Your task to perform on an android device: Go to privacy settings Image 0: 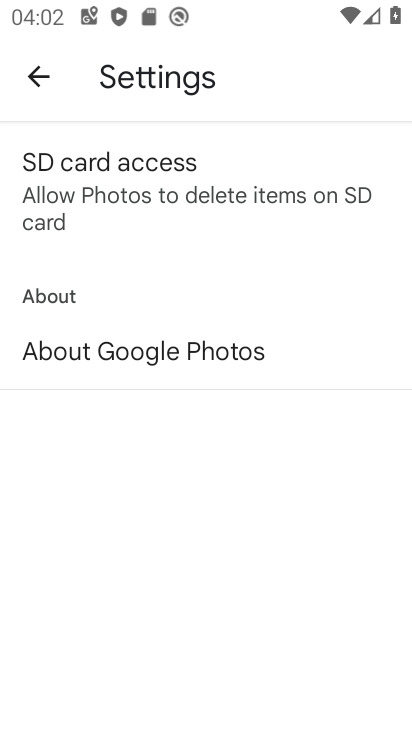
Step 0: press back button
Your task to perform on an android device: Go to privacy settings Image 1: 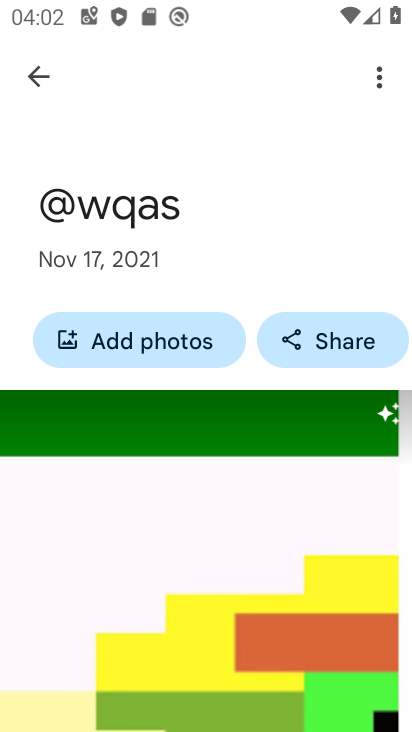
Step 1: press back button
Your task to perform on an android device: Go to privacy settings Image 2: 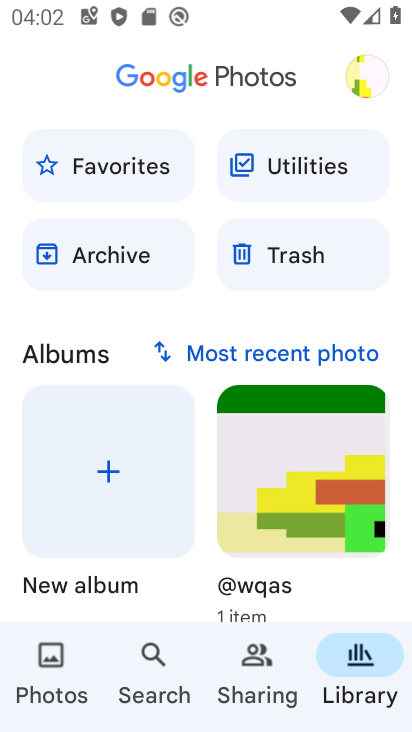
Step 2: press home button
Your task to perform on an android device: Go to privacy settings Image 3: 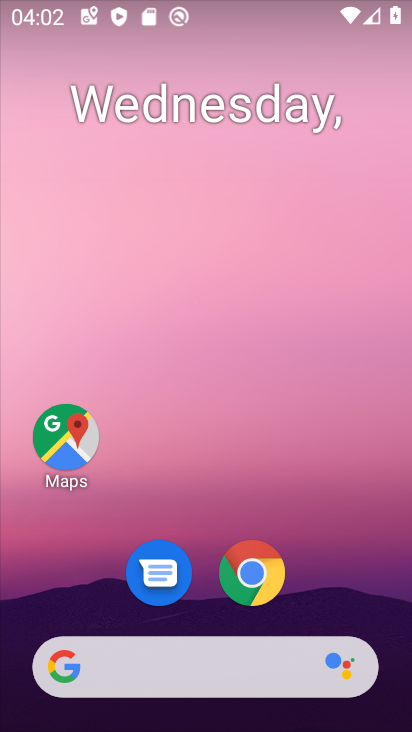
Step 3: drag from (347, 550) to (328, 59)
Your task to perform on an android device: Go to privacy settings Image 4: 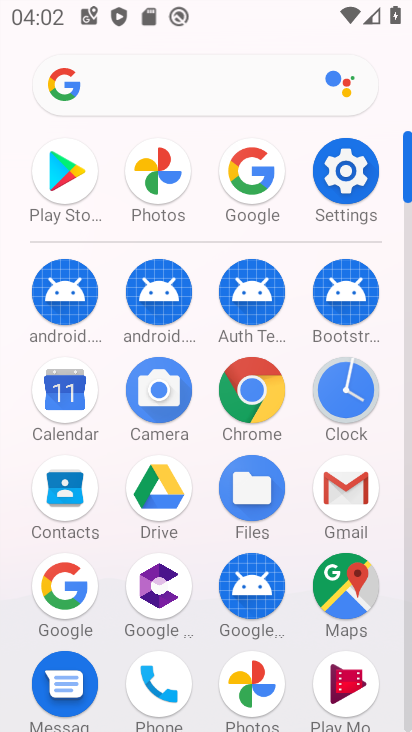
Step 4: click (346, 172)
Your task to perform on an android device: Go to privacy settings Image 5: 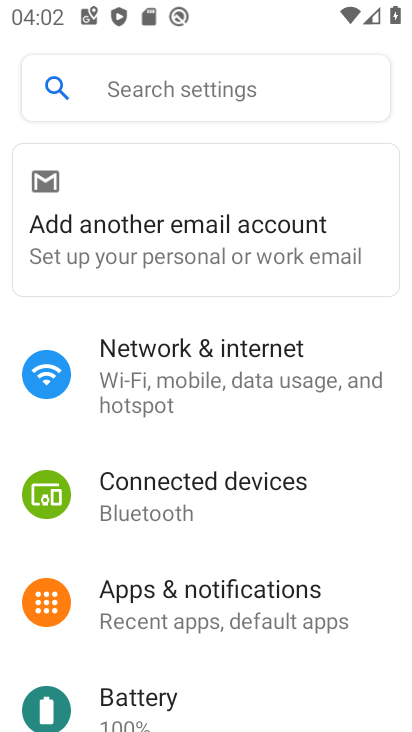
Step 5: drag from (201, 554) to (268, 391)
Your task to perform on an android device: Go to privacy settings Image 6: 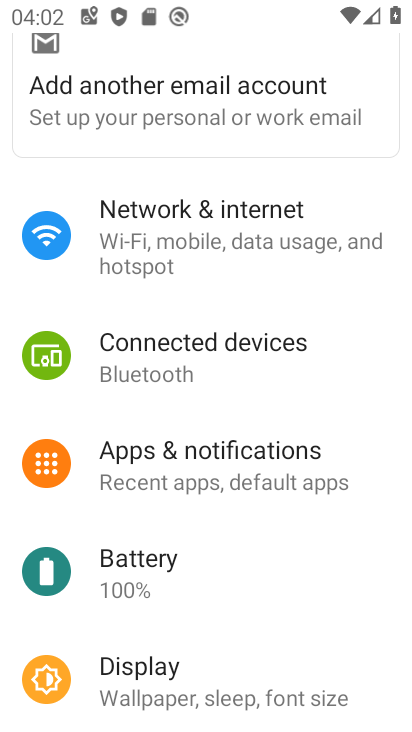
Step 6: drag from (193, 577) to (242, 454)
Your task to perform on an android device: Go to privacy settings Image 7: 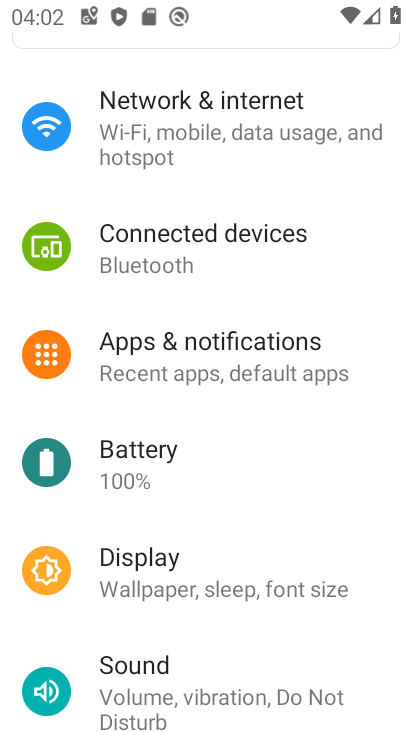
Step 7: drag from (173, 607) to (242, 480)
Your task to perform on an android device: Go to privacy settings Image 8: 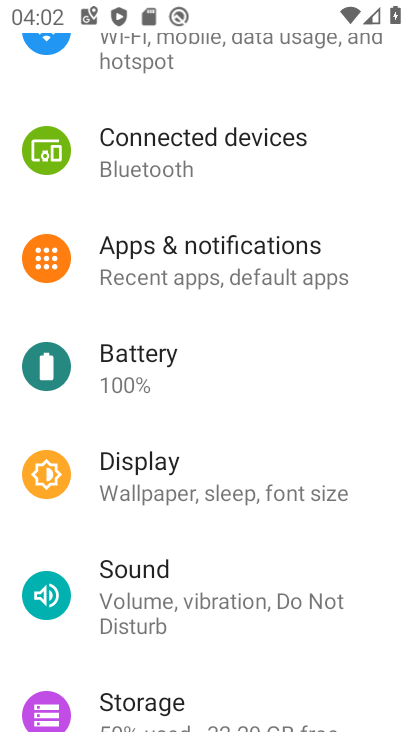
Step 8: drag from (186, 631) to (242, 482)
Your task to perform on an android device: Go to privacy settings Image 9: 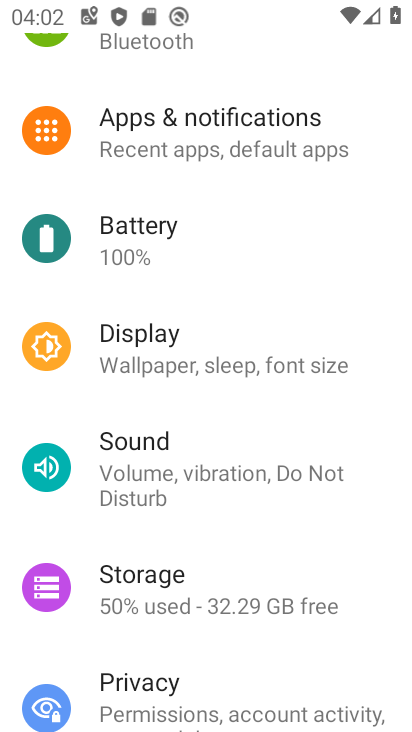
Step 9: drag from (186, 643) to (250, 509)
Your task to perform on an android device: Go to privacy settings Image 10: 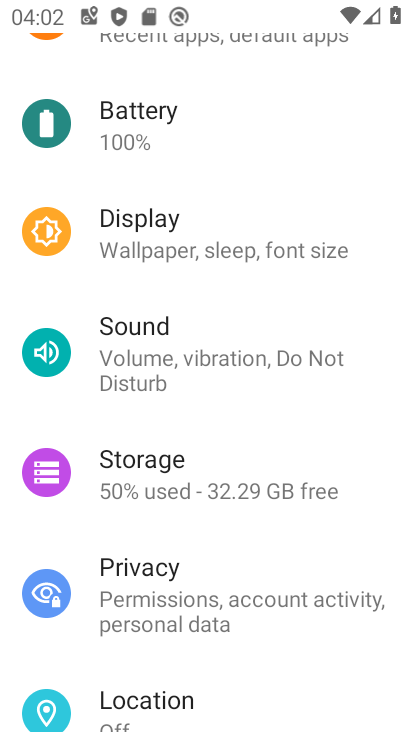
Step 10: click (172, 578)
Your task to perform on an android device: Go to privacy settings Image 11: 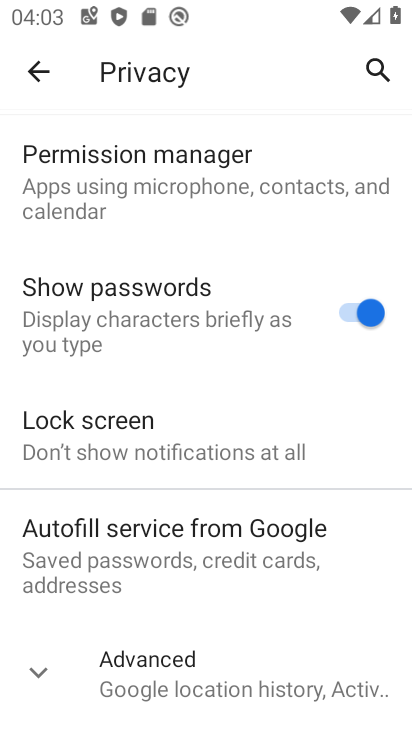
Step 11: task complete